Your task to perform on an android device: See recent photos Image 0: 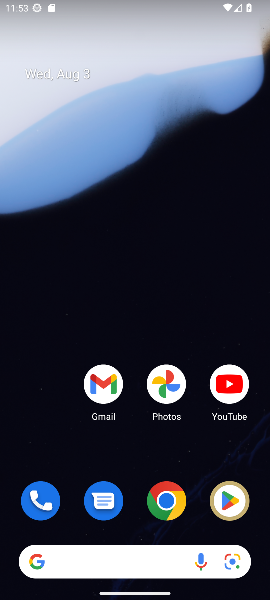
Step 0: click (164, 375)
Your task to perform on an android device: See recent photos Image 1: 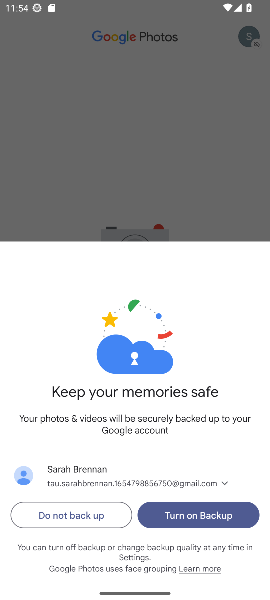
Step 1: click (190, 209)
Your task to perform on an android device: See recent photos Image 2: 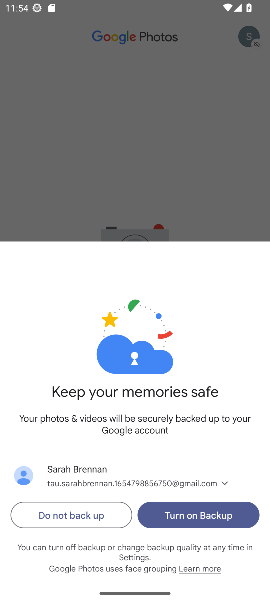
Step 2: click (143, 149)
Your task to perform on an android device: See recent photos Image 3: 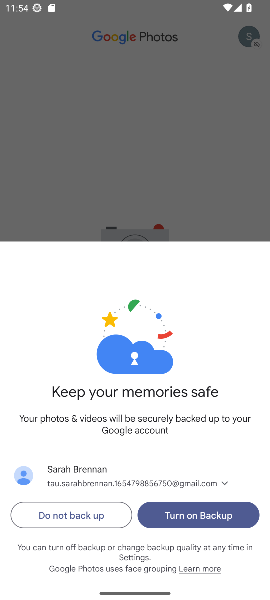
Step 3: click (188, 523)
Your task to perform on an android device: See recent photos Image 4: 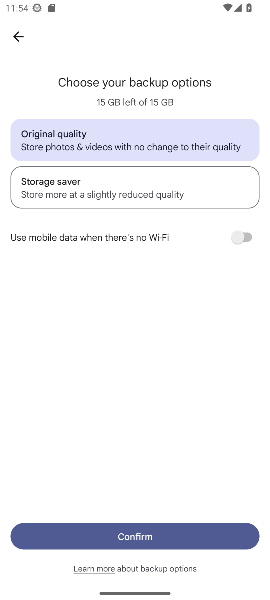
Step 4: click (130, 536)
Your task to perform on an android device: See recent photos Image 5: 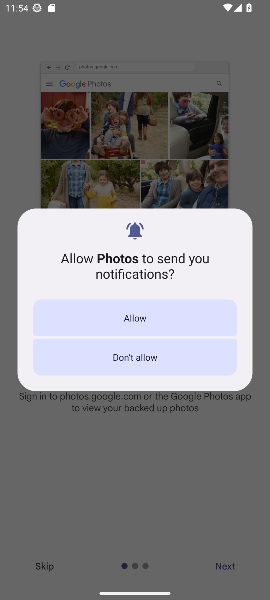
Step 5: click (132, 310)
Your task to perform on an android device: See recent photos Image 6: 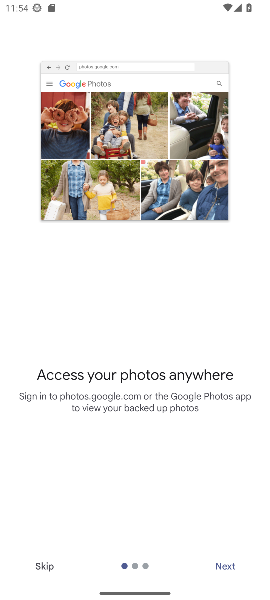
Step 6: click (36, 572)
Your task to perform on an android device: See recent photos Image 7: 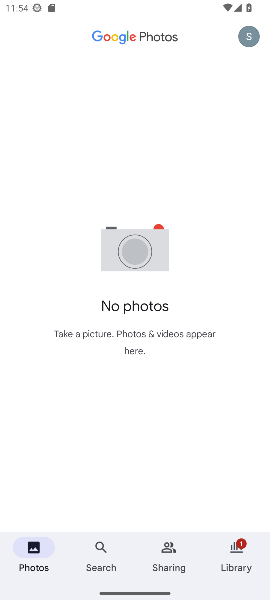
Step 7: task complete